Your task to perform on an android device: Go to Wikipedia Image 0: 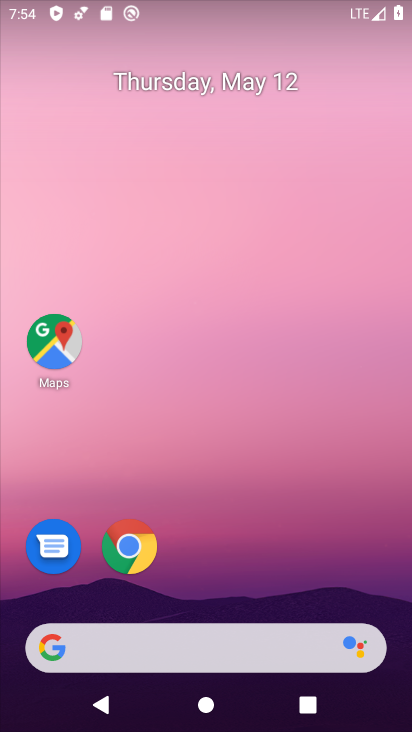
Step 0: drag from (126, 14) to (209, 461)
Your task to perform on an android device: Go to Wikipedia Image 1: 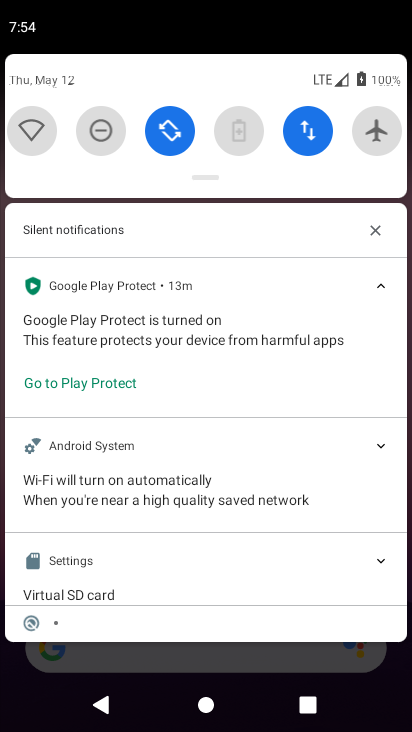
Step 1: drag from (209, 559) to (265, 7)
Your task to perform on an android device: Go to Wikipedia Image 2: 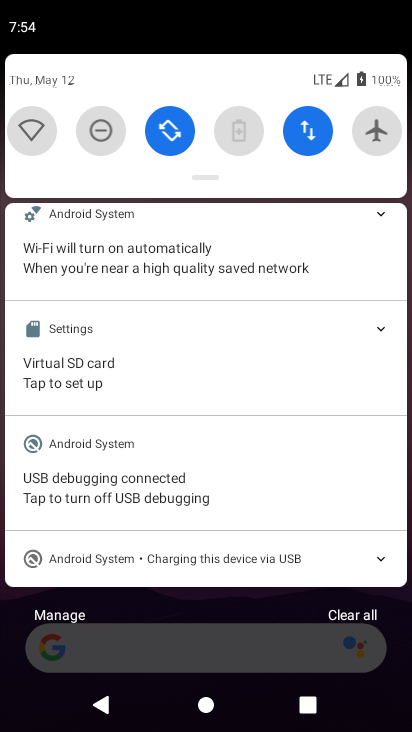
Step 2: drag from (182, 614) to (251, 64)
Your task to perform on an android device: Go to Wikipedia Image 3: 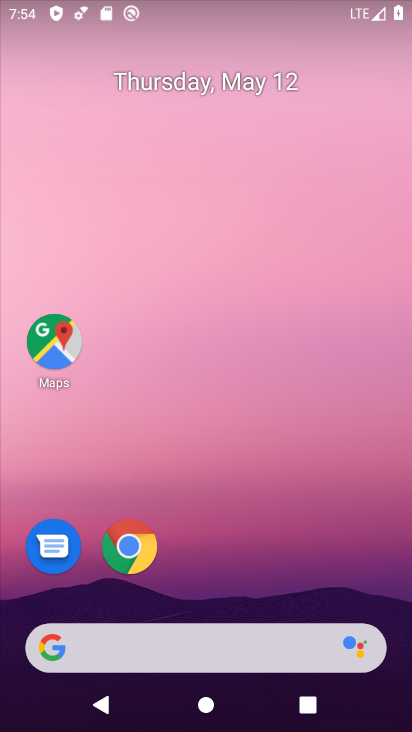
Step 3: click (120, 547)
Your task to perform on an android device: Go to Wikipedia Image 4: 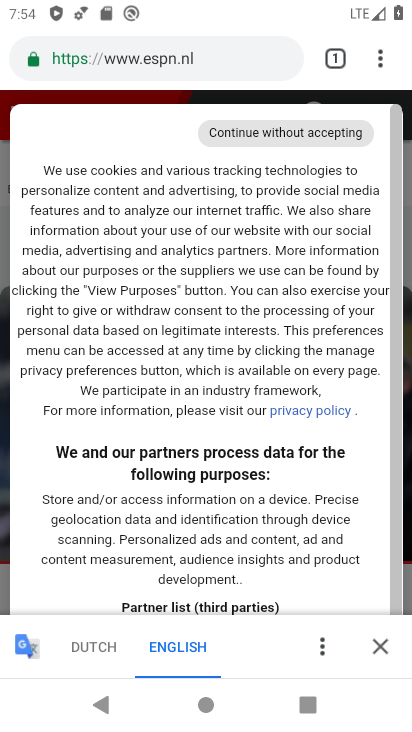
Step 4: click (343, 51)
Your task to perform on an android device: Go to Wikipedia Image 5: 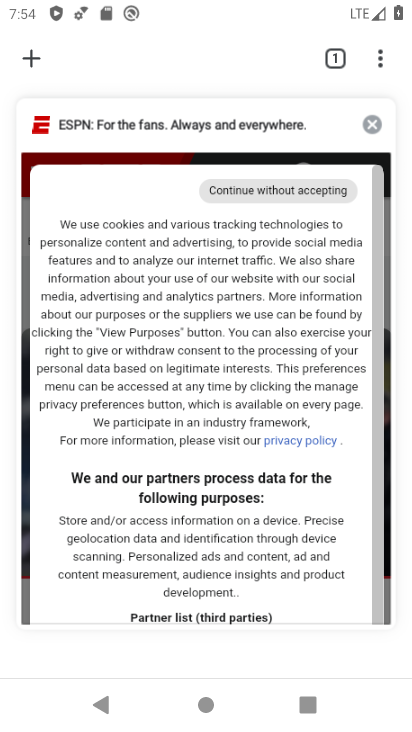
Step 5: click (33, 50)
Your task to perform on an android device: Go to Wikipedia Image 6: 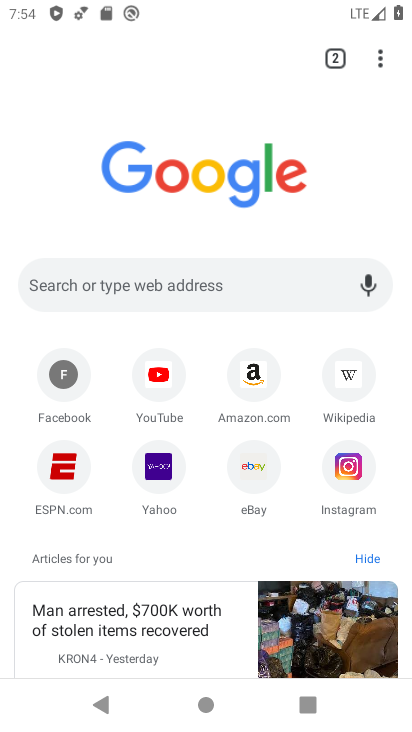
Step 6: click (360, 373)
Your task to perform on an android device: Go to Wikipedia Image 7: 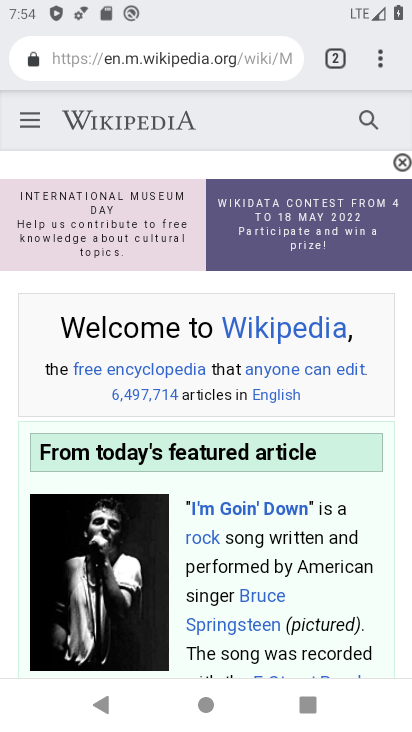
Step 7: task complete